Your task to perform on an android device: Open maps Image 0: 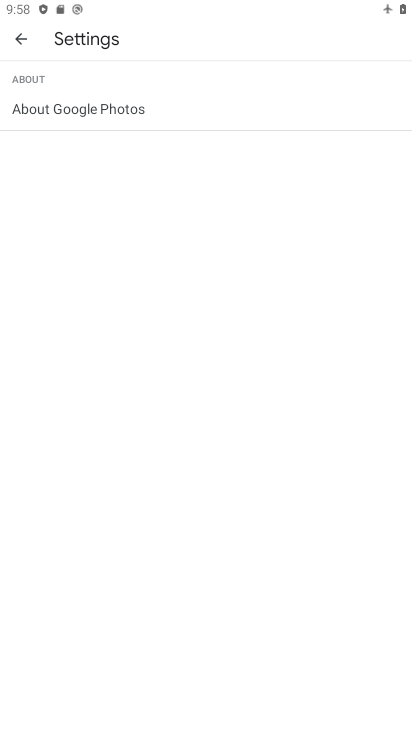
Step 0: press home button
Your task to perform on an android device: Open maps Image 1: 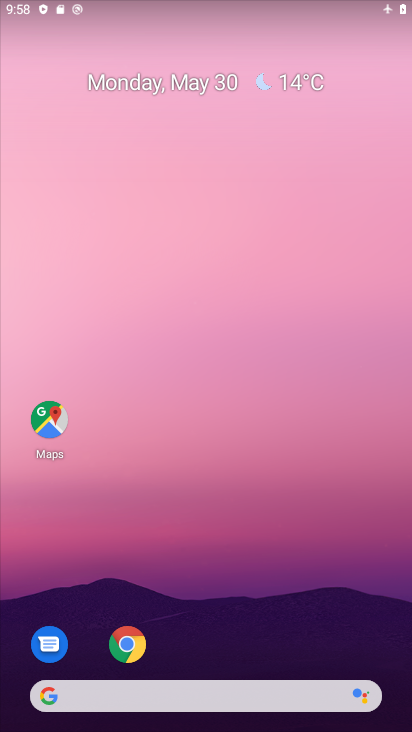
Step 1: click (45, 419)
Your task to perform on an android device: Open maps Image 2: 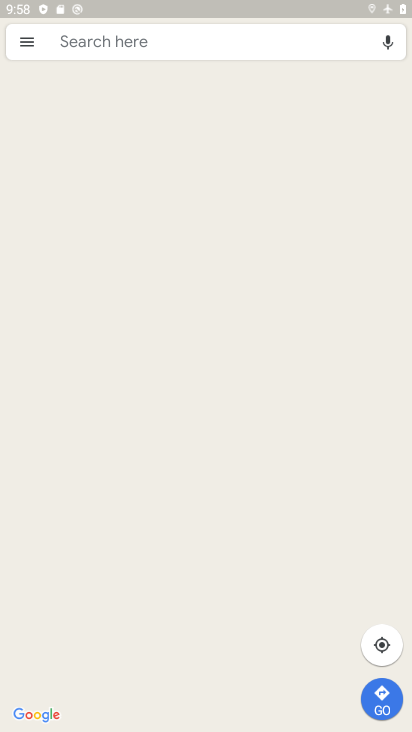
Step 2: task complete